Your task to perform on an android device: Go to accessibility settings Image 0: 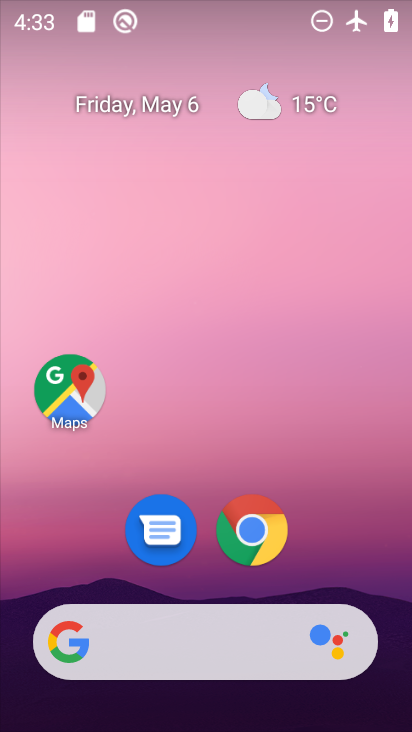
Step 0: drag from (347, 565) to (313, 154)
Your task to perform on an android device: Go to accessibility settings Image 1: 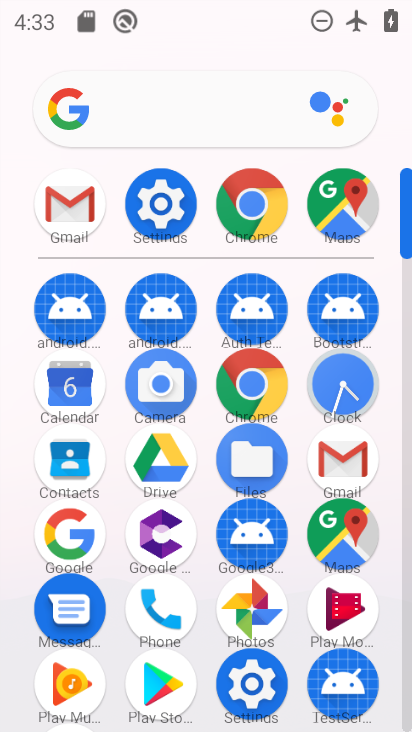
Step 1: click (169, 207)
Your task to perform on an android device: Go to accessibility settings Image 2: 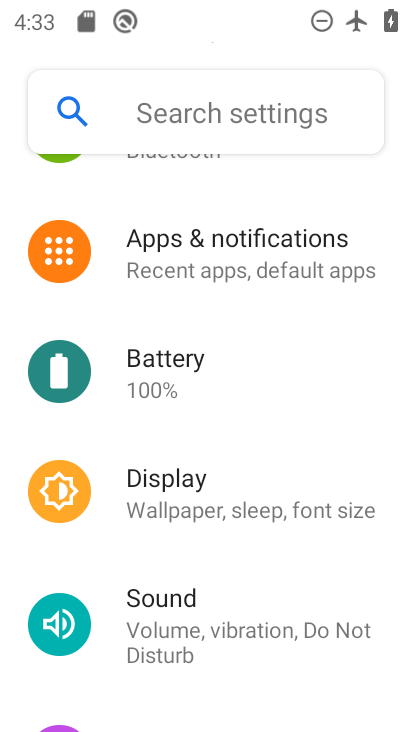
Step 2: drag from (281, 565) to (320, 199)
Your task to perform on an android device: Go to accessibility settings Image 3: 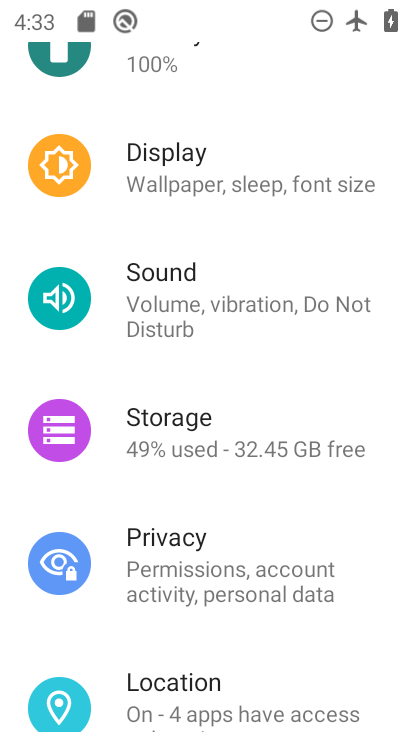
Step 3: drag from (231, 564) to (216, 131)
Your task to perform on an android device: Go to accessibility settings Image 4: 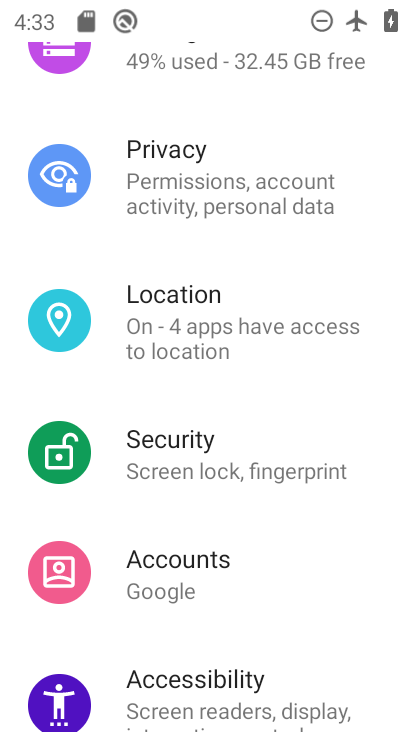
Step 4: drag from (216, 577) to (223, 160)
Your task to perform on an android device: Go to accessibility settings Image 5: 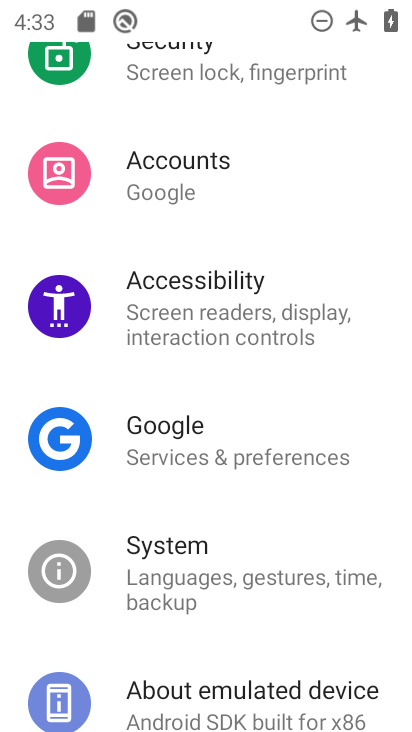
Step 5: click (180, 329)
Your task to perform on an android device: Go to accessibility settings Image 6: 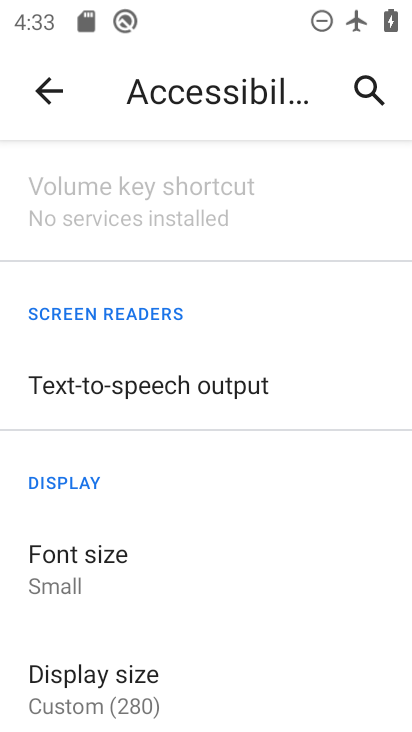
Step 6: drag from (178, 609) to (178, 310)
Your task to perform on an android device: Go to accessibility settings Image 7: 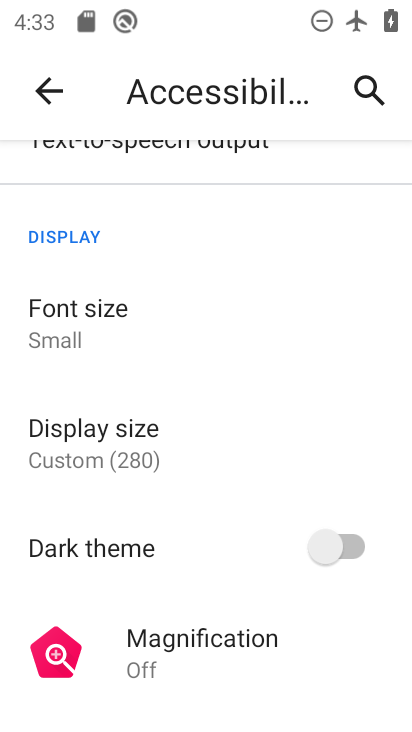
Step 7: click (179, 231)
Your task to perform on an android device: Go to accessibility settings Image 8: 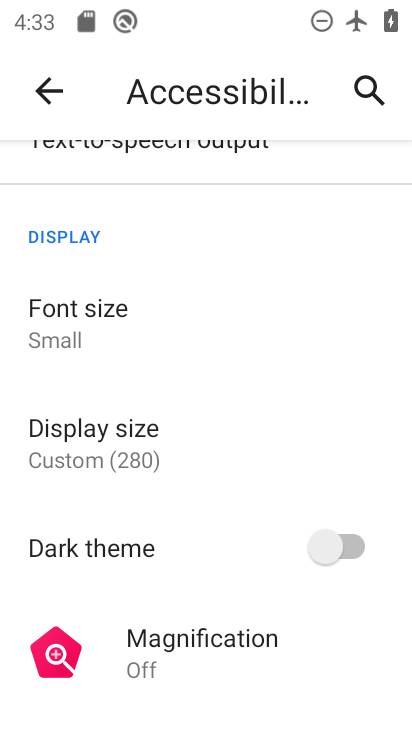
Step 8: task complete